Your task to perform on an android device: Open eBay Image 0: 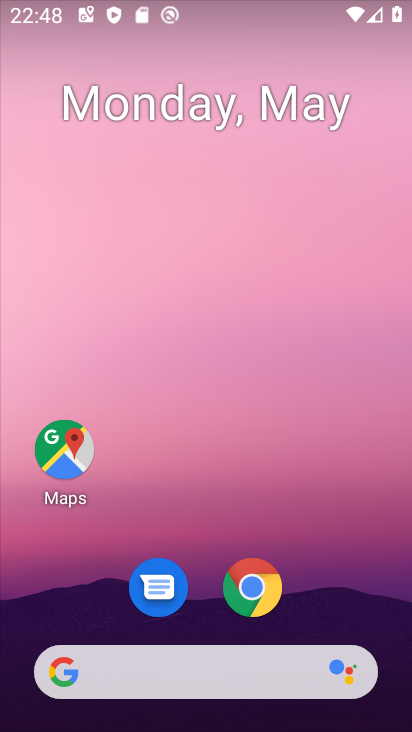
Step 0: click (240, 585)
Your task to perform on an android device: Open eBay Image 1: 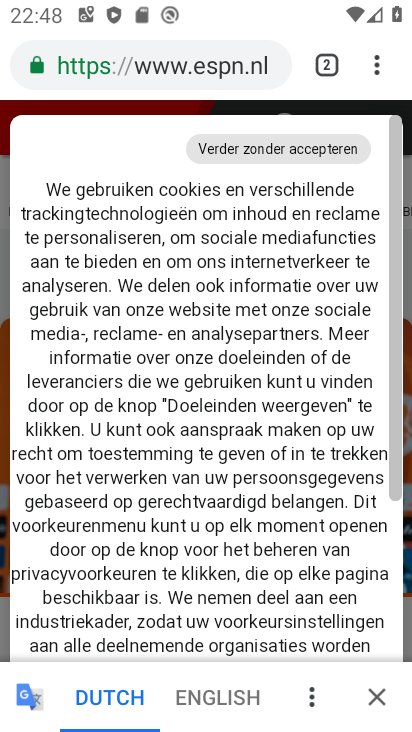
Step 1: click (317, 65)
Your task to perform on an android device: Open eBay Image 2: 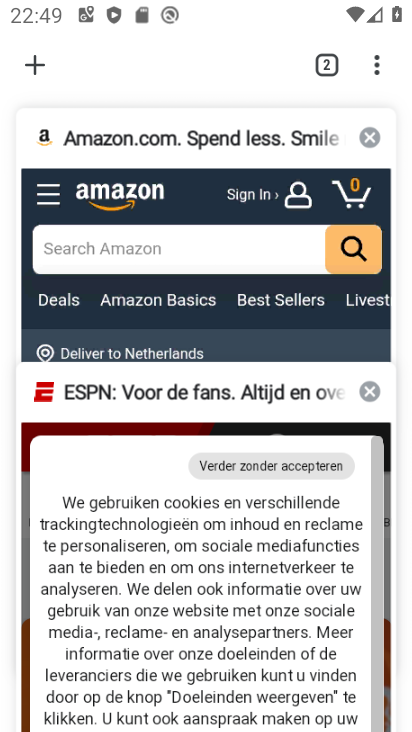
Step 2: click (37, 43)
Your task to perform on an android device: Open eBay Image 3: 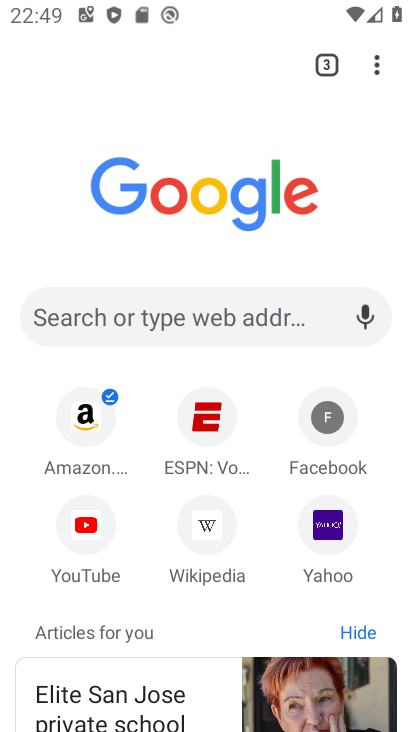
Step 3: click (159, 315)
Your task to perform on an android device: Open eBay Image 4: 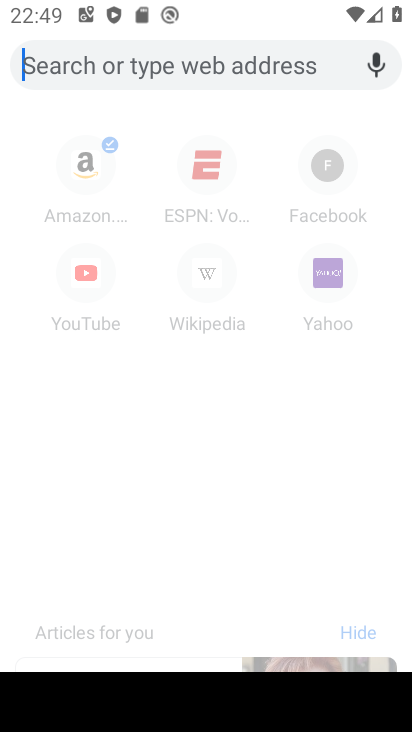
Step 4: type "ebay"
Your task to perform on an android device: Open eBay Image 5: 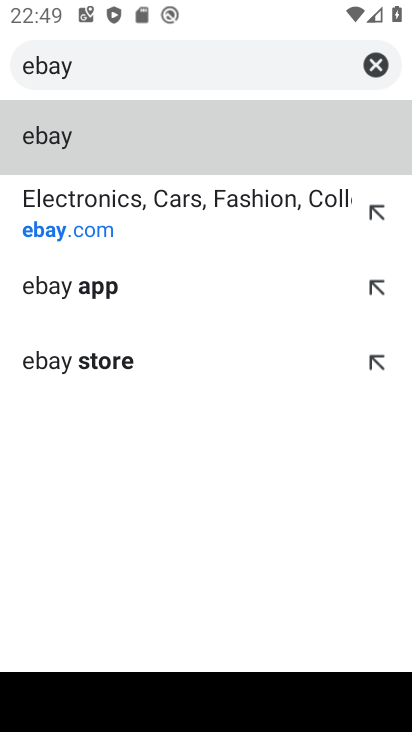
Step 5: click (52, 233)
Your task to perform on an android device: Open eBay Image 6: 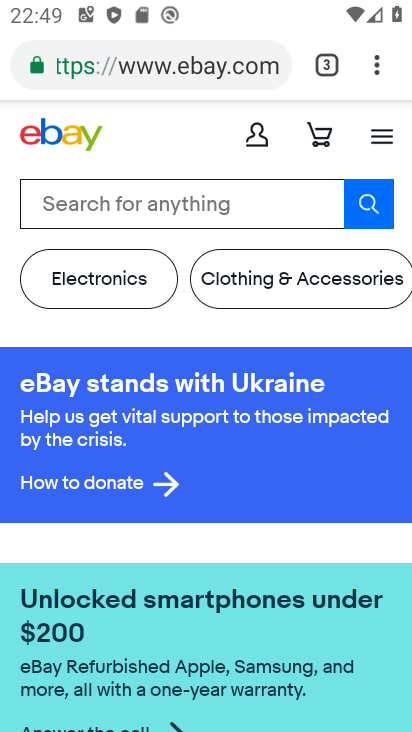
Step 6: task complete